Your task to perform on an android device: change the upload size in google photos Image 0: 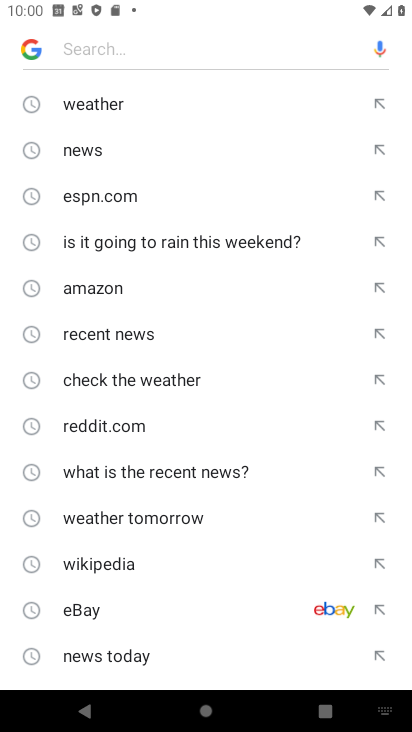
Step 0: press home button
Your task to perform on an android device: change the upload size in google photos Image 1: 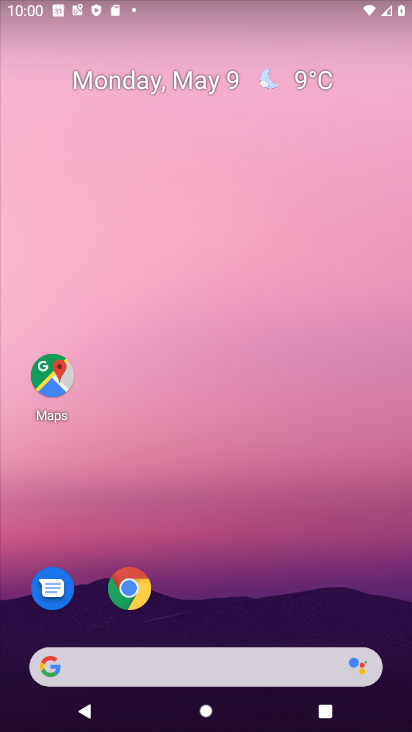
Step 1: drag from (267, 667) to (189, 100)
Your task to perform on an android device: change the upload size in google photos Image 2: 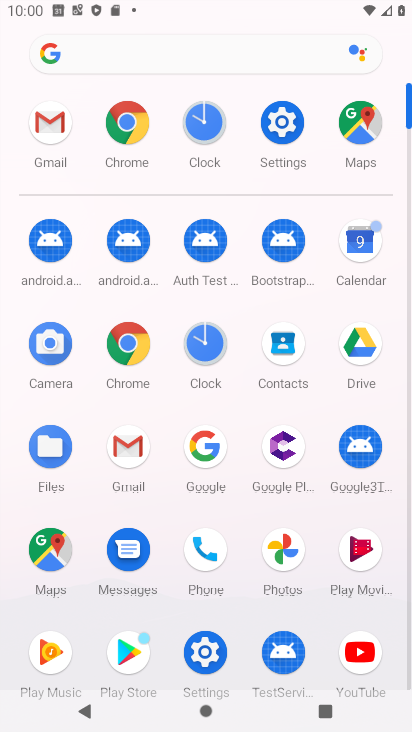
Step 2: click (280, 544)
Your task to perform on an android device: change the upload size in google photos Image 3: 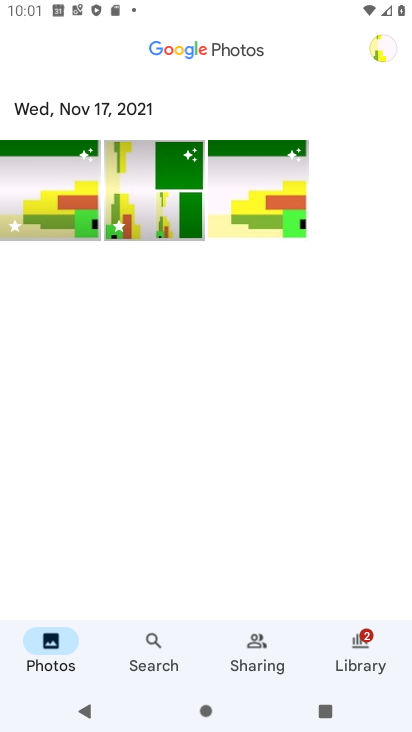
Step 3: click (372, 46)
Your task to perform on an android device: change the upload size in google photos Image 4: 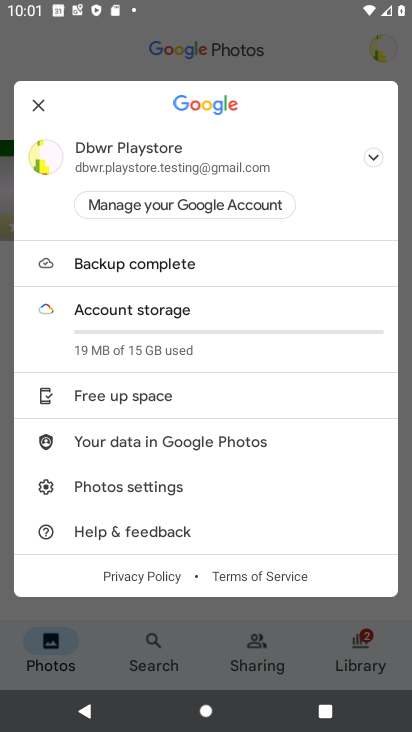
Step 4: click (156, 488)
Your task to perform on an android device: change the upload size in google photos Image 5: 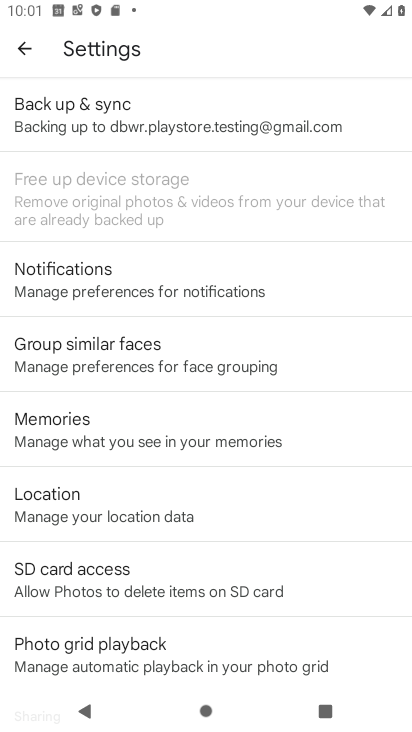
Step 5: click (158, 101)
Your task to perform on an android device: change the upload size in google photos Image 6: 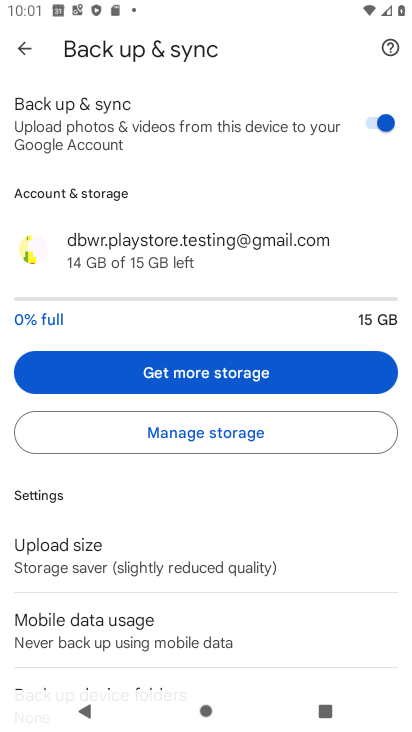
Step 6: click (101, 558)
Your task to perform on an android device: change the upload size in google photos Image 7: 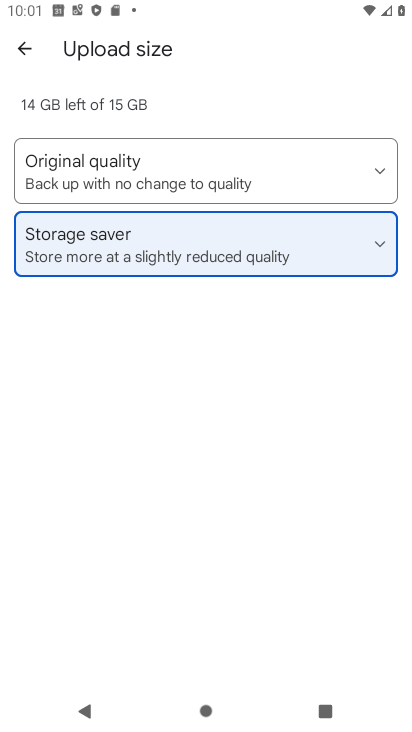
Step 7: click (373, 172)
Your task to perform on an android device: change the upload size in google photos Image 8: 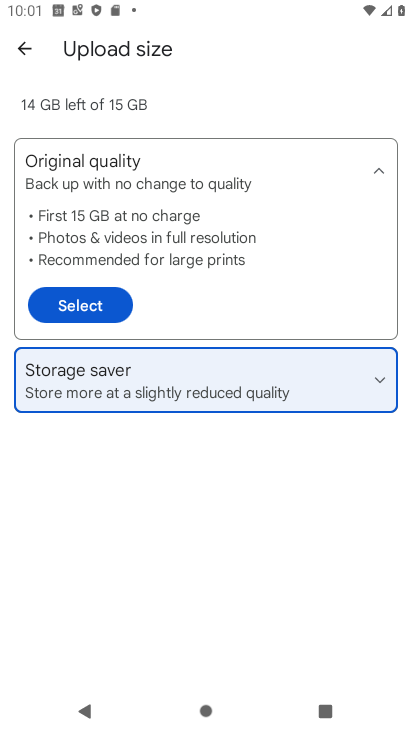
Step 8: click (66, 296)
Your task to perform on an android device: change the upload size in google photos Image 9: 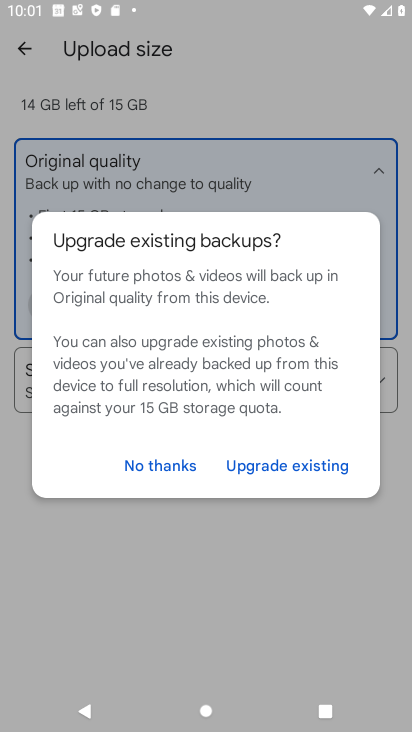
Step 9: click (279, 468)
Your task to perform on an android device: change the upload size in google photos Image 10: 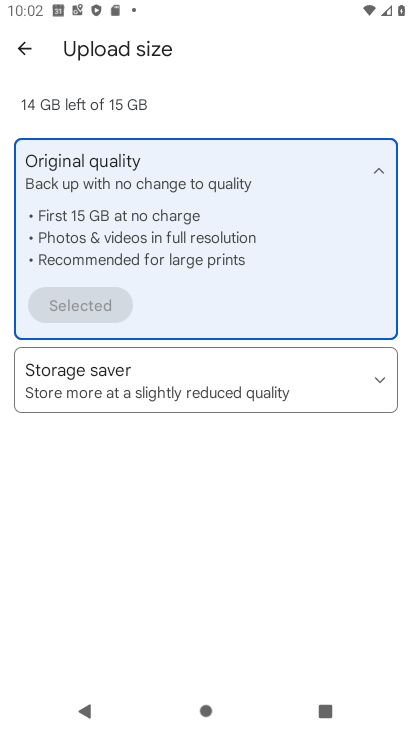
Step 10: task complete